Your task to perform on an android device: Show the shopping cart on newegg.com. Search for "usb-c to usb-b" on newegg.com, select the first entry, and add it to the cart. Image 0: 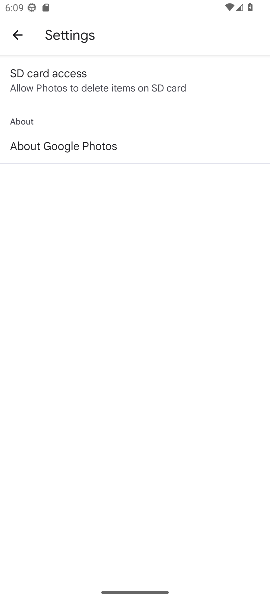
Step 0: press home button
Your task to perform on an android device: Show the shopping cart on newegg.com. Search for "usb-c to usb-b" on newegg.com, select the first entry, and add it to the cart. Image 1: 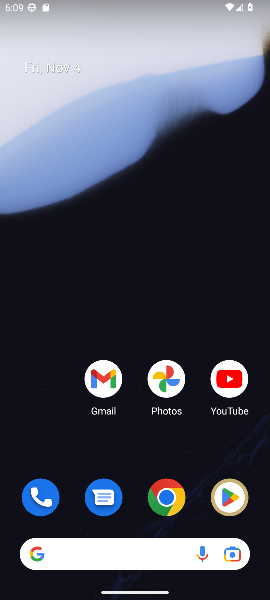
Step 1: click (168, 501)
Your task to perform on an android device: Show the shopping cart on newegg.com. Search for "usb-c to usb-b" on newegg.com, select the first entry, and add it to the cart. Image 2: 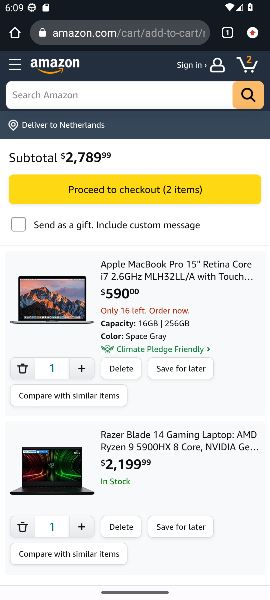
Step 2: click (107, 35)
Your task to perform on an android device: Show the shopping cart on newegg.com. Search for "usb-c to usb-b" on newegg.com, select the first entry, and add it to the cart. Image 3: 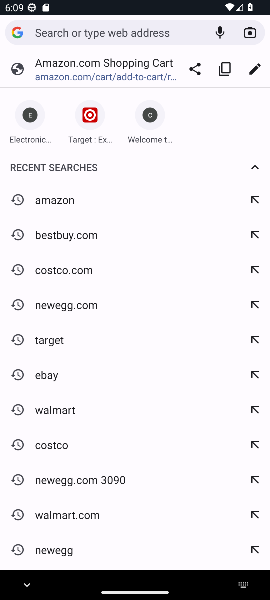
Step 3: click (78, 302)
Your task to perform on an android device: Show the shopping cart on newegg.com. Search for "usb-c to usb-b" on newegg.com, select the first entry, and add it to the cart. Image 4: 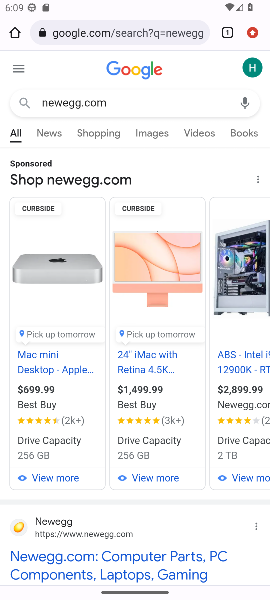
Step 4: drag from (105, 390) to (142, 189)
Your task to perform on an android device: Show the shopping cart on newegg.com. Search for "usb-c to usb-b" on newegg.com, select the first entry, and add it to the cart. Image 5: 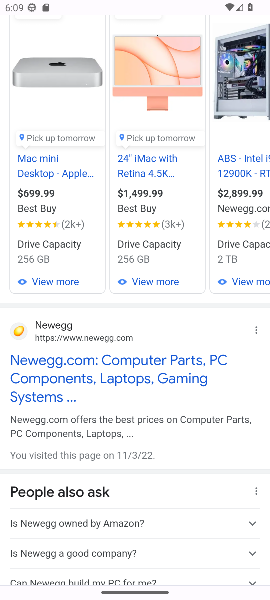
Step 5: click (62, 338)
Your task to perform on an android device: Show the shopping cart on newegg.com. Search for "usb-c to usb-b" on newegg.com, select the first entry, and add it to the cart. Image 6: 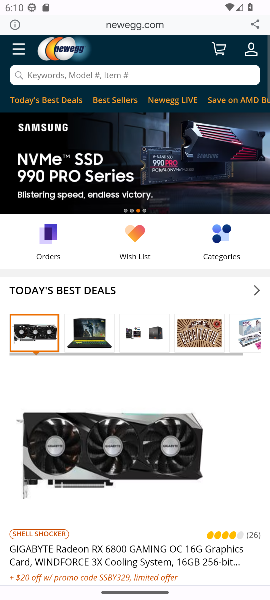
Step 6: click (221, 44)
Your task to perform on an android device: Show the shopping cart on newegg.com. Search for "usb-c to usb-b" on newegg.com, select the first entry, and add it to the cart. Image 7: 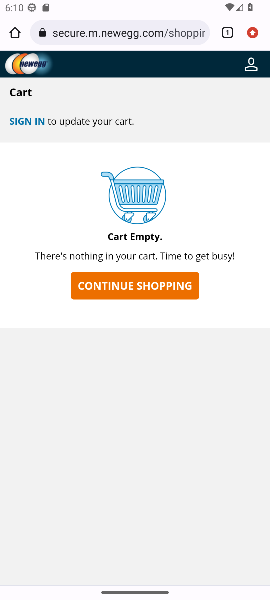
Step 7: click (111, 284)
Your task to perform on an android device: Show the shopping cart on newegg.com. Search for "usb-c to usb-b" on newegg.com, select the first entry, and add it to the cart. Image 8: 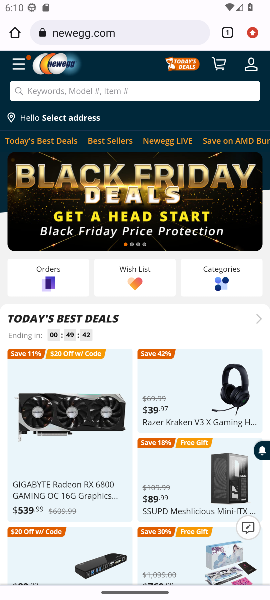
Step 8: click (128, 96)
Your task to perform on an android device: Show the shopping cart on newegg.com. Search for "usb-c to usb-b" on newegg.com, select the first entry, and add it to the cart. Image 9: 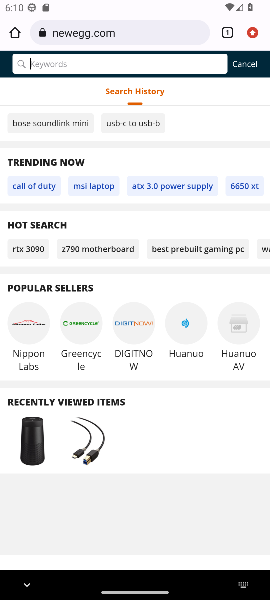
Step 9: type "usb-c to usb-b"
Your task to perform on an android device: Show the shopping cart on newegg.com. Search for "usb-c to usb-b" on newegg.com, select the first entry, and add it to the cart. Image 10: 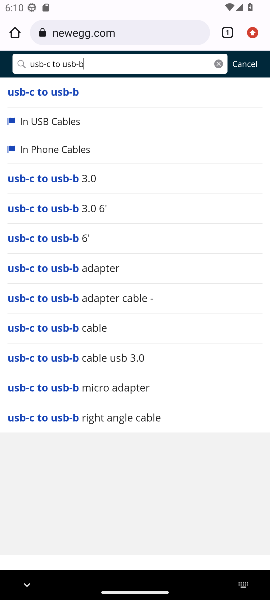
Step 10: click (67, 98)
Your task to perform on an android device: Show the shopping cart on newegg.com. Search for "usb-c to usb-b" on newegg.com, select the first entry, and add it to the cart. Image 11: 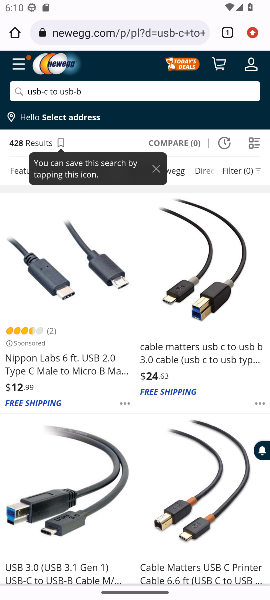
Step 11: click (55, 276)
Your task to perform on an android device: Show the shopping cart on newegg.com. Search for "usb-c to usb-b" on newegg.com, select the first entry, and add it to the cart. Image 12: 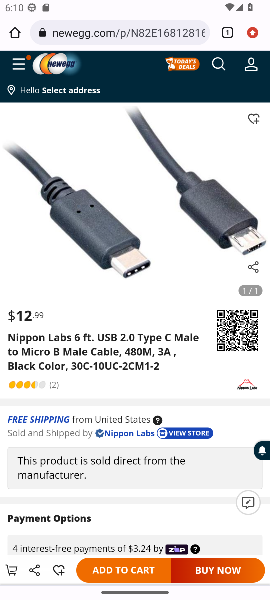
Step 12: click (121, 571)
Your task to perform on an android device: Show the shopping cart on newegg.com. Search for "usb-c to usb-b" on newegg.com, select the first entry, and add it to the cart. Image 13: 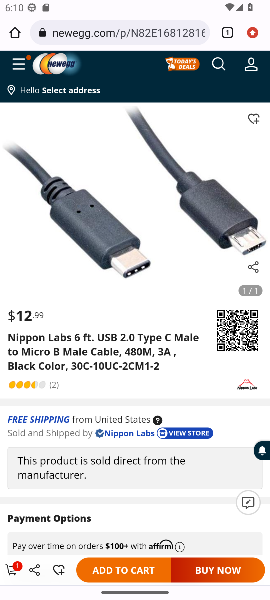
Step 13: click (13, 568)
Your task to perform on an android device: Show the shopping cart on newegg.com. Search for "usb-c to usb-b" on newegg.com, select the first entry, and add it to the cart. Image 14: 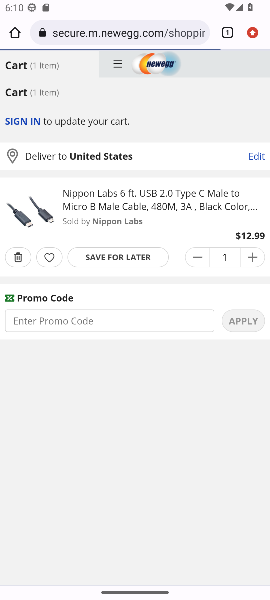
Step 14: task complete